Your task to perform on an android device: Go to eBay Image 0: 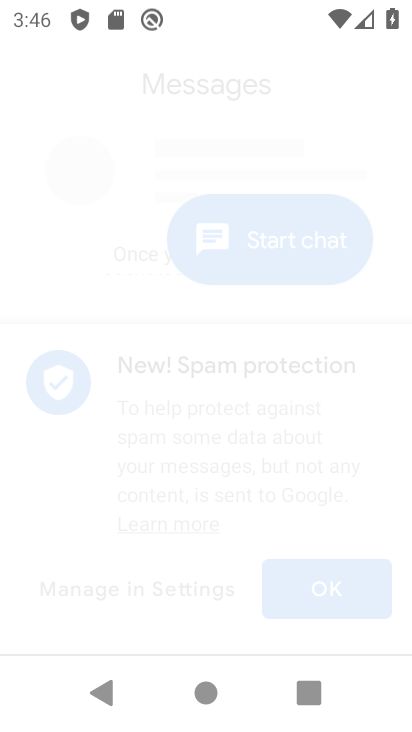
Step 0: drag from (228, 647) to (228, 160)
Your task to perform on an android device: Go to eBay Image 1: 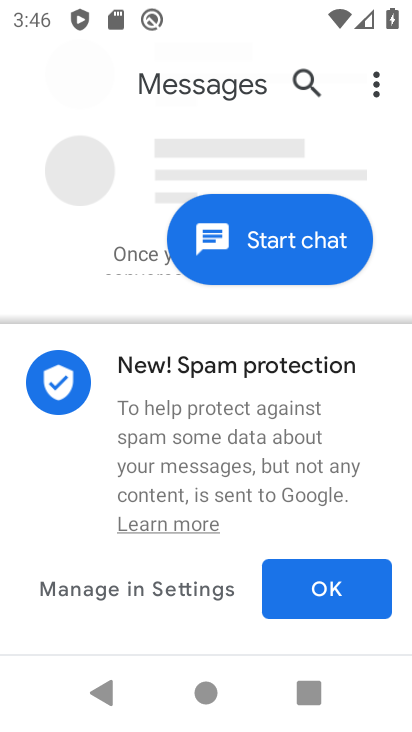
Step 1: press home button
Your task to perform on an android device: Go to eBay Image 2: 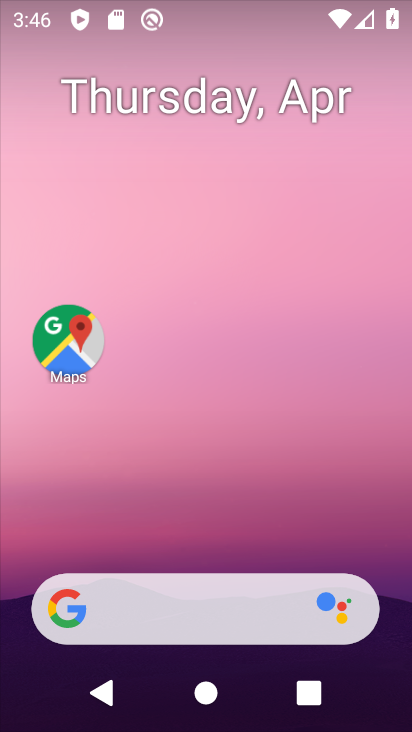
Step 2: drag from (212, 680) to (212, 108)
Your task to perform on an android device: Go to eBay Image 3: 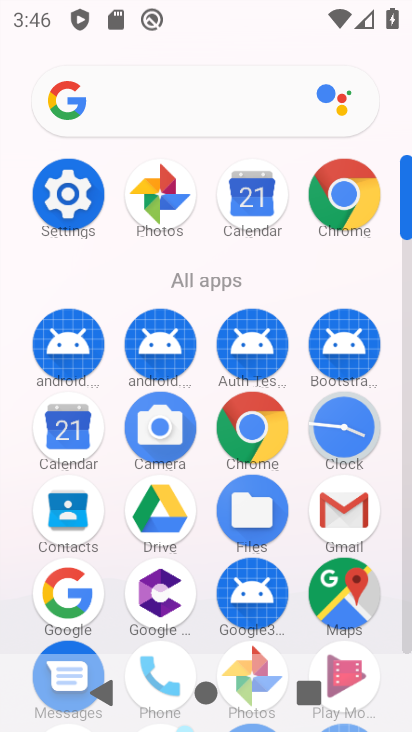
Step 3: click (346, 198)
Your task to perform on an android device: Go to eBay Image 4: 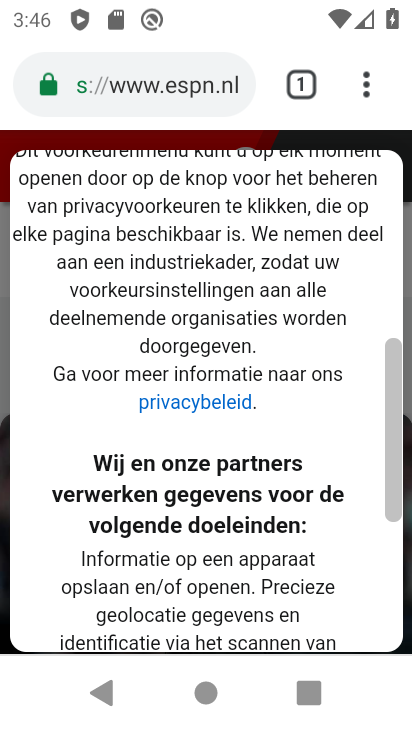
Step 4: drag from (367, 93) to (204, 169)
Your task to perform on an android device: Go to eBay Image 5: 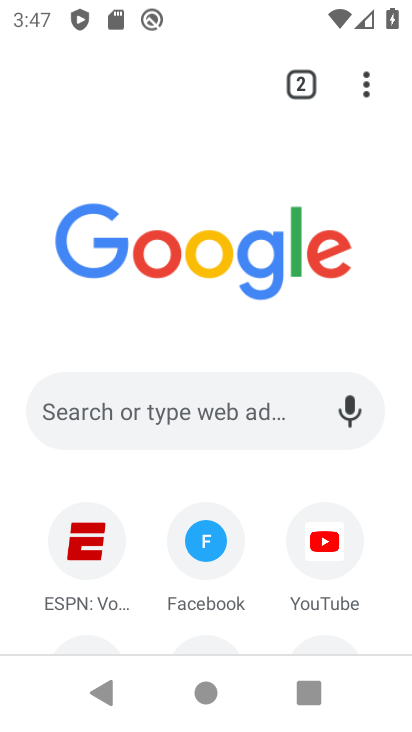
Step 5: click (175, 413)
Your task to perform on an android device: Go to eBay Image 6: 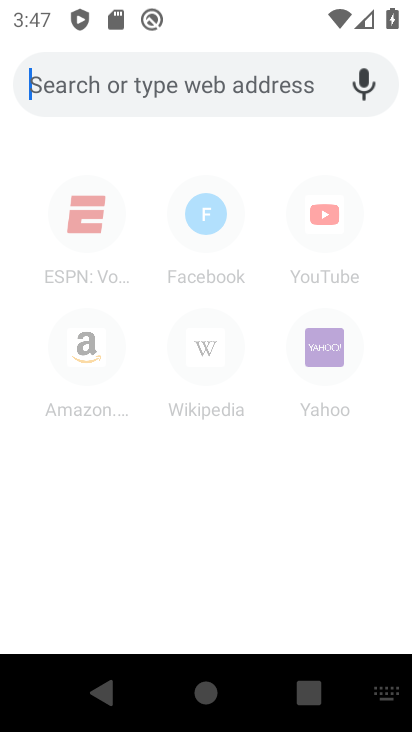
Step 6: type "eBay"
Your task to perform on an android device: Go to eBay Image 7: 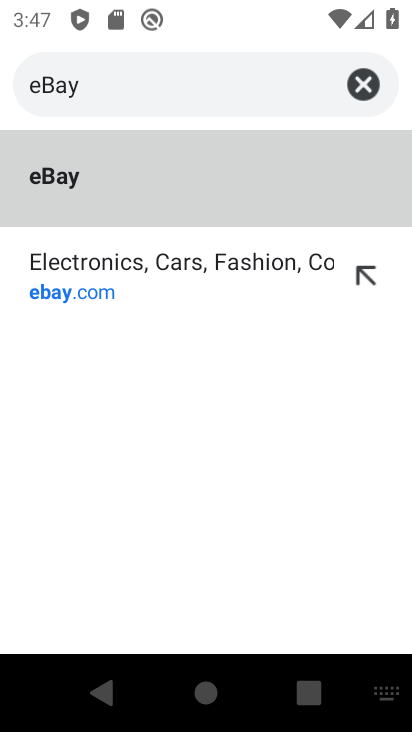
Step 7: click (73, 182)
Your task to perform on an android device: Go to eBay Image 8: 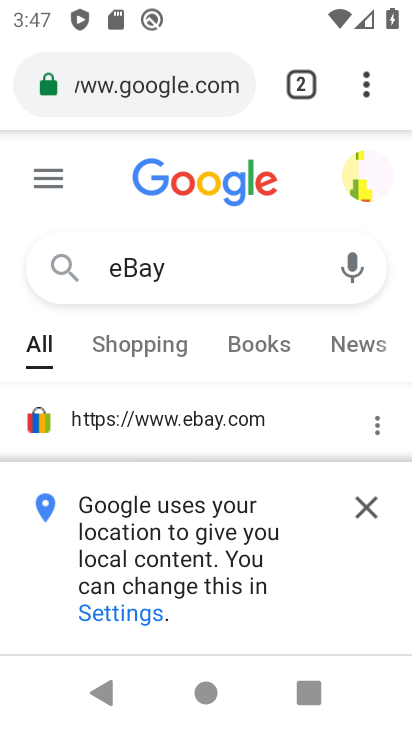
Step 8: click (137, 416)
Your task to perform on an android device: Go to eBay Image 9: 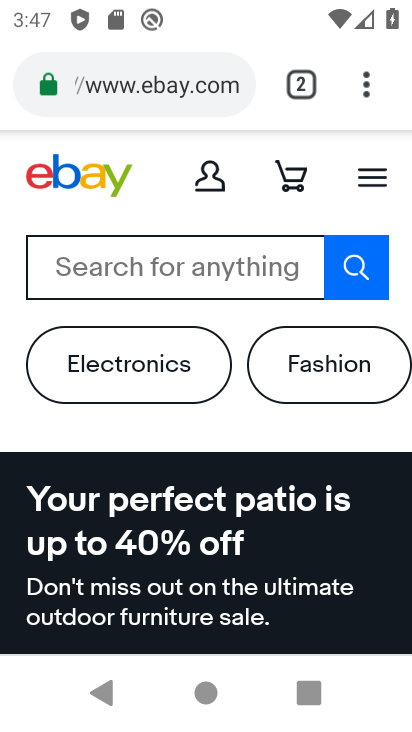
Step 9: task complete